Your task to perform on an android device: set the stopwatch Image 0: 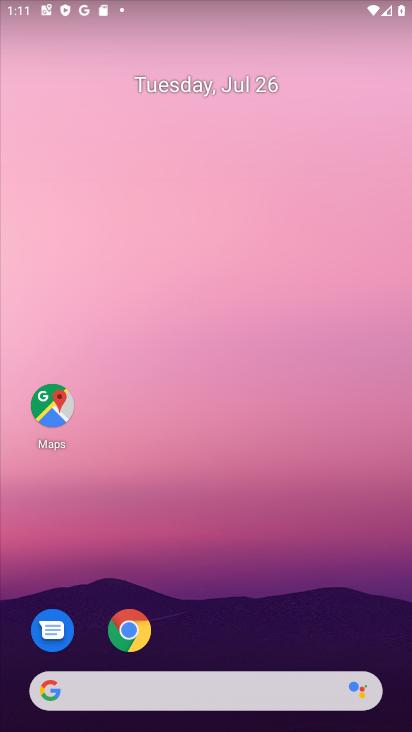
Step 0: drag from (279, 538) to (411, 533)
Your task to perform on an android device: set the stopwatch Image 1: 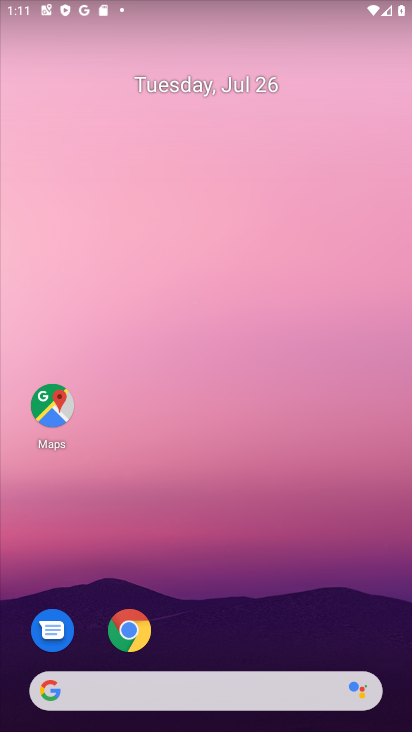
Step 1: drag from (223, 622) to (319, 151)
Your task to perform on an android device: set the stopwatch Image 2: 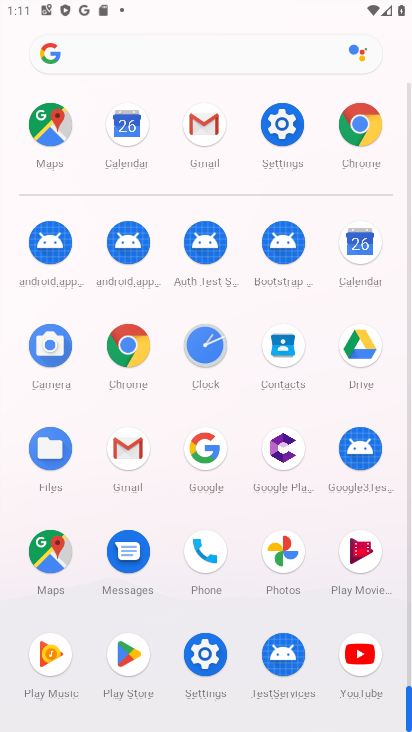
Step 2: click (196, 362)
Your task to perform on an android device: set the stopwatch Image 3: 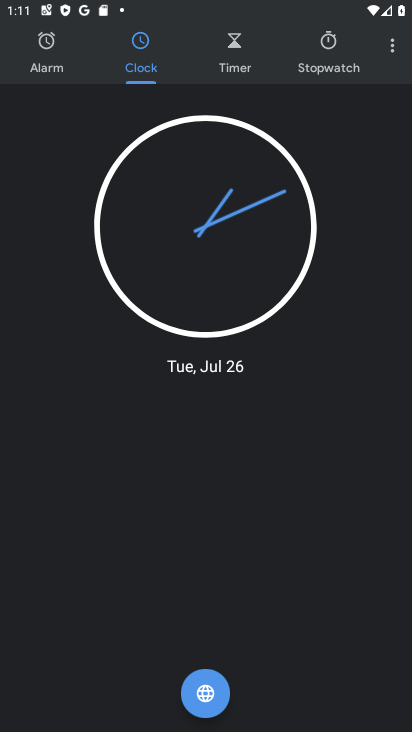
Step 3: click (344, 54)
Your task to perform on an android device: set the stopwatch Image 4: 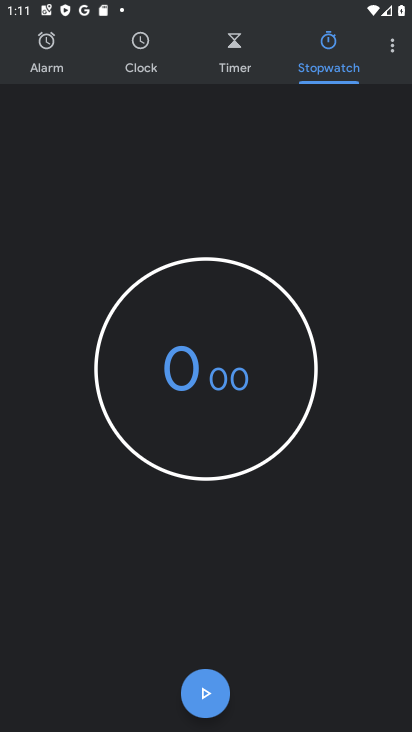
Step 4: click (202, 699)
Your task to perform on an android device: set the stopwatch Image 5: 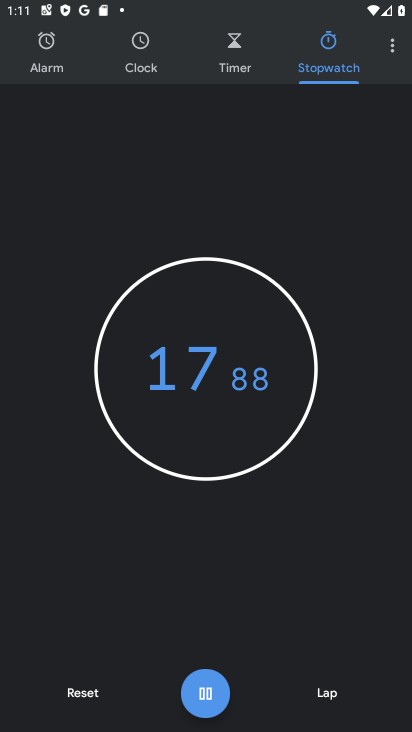
Step 5: task complete